Your task to perform on an android device: see tabs open on other devices in the chrome app Image 0: 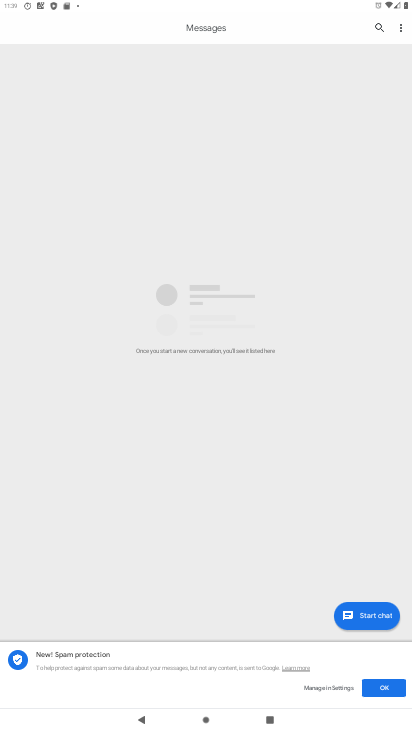
Step 0: press home button
Your task to perform on an android device: see tabs open on other devices in the chrome app Image 1: 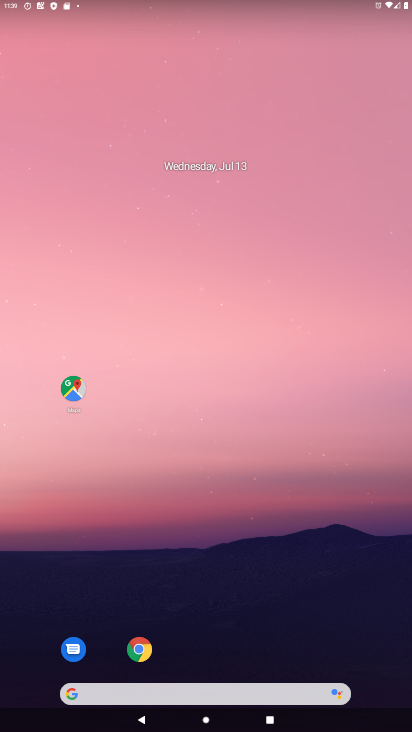
Step 1: click (140, 649)
Your task to perform on an android device: see tabs open on other devices in the chrome app Image 2: 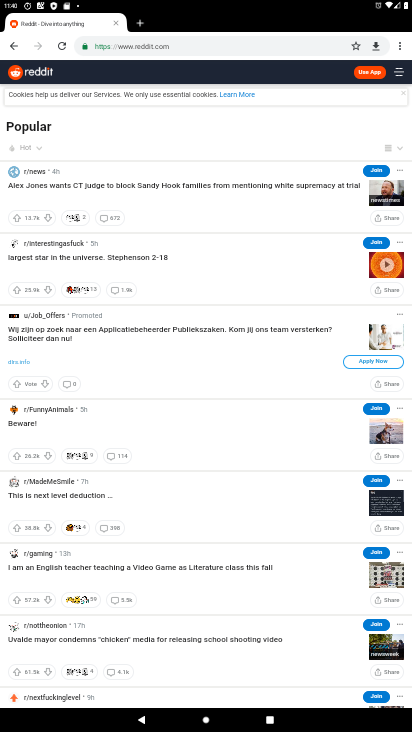
Step 2: click (399, 45)
Your task to perform on an android device: see tabs open on other devices in the chrome app Image 3: 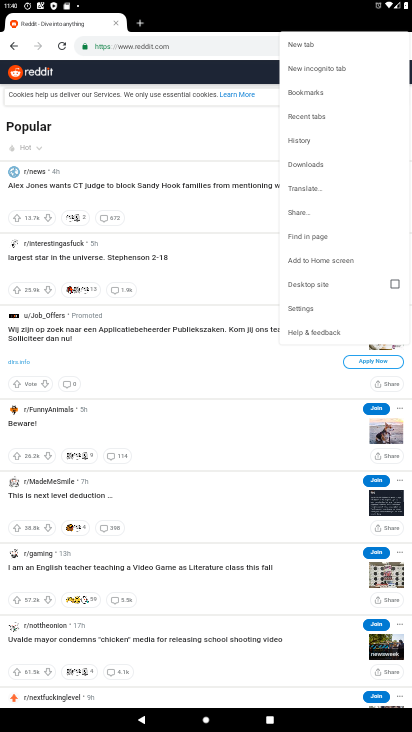
Step 3: click (307, 116)
Your task to perform on an android device: see tabs open on other devices in the chrome app Image 4: 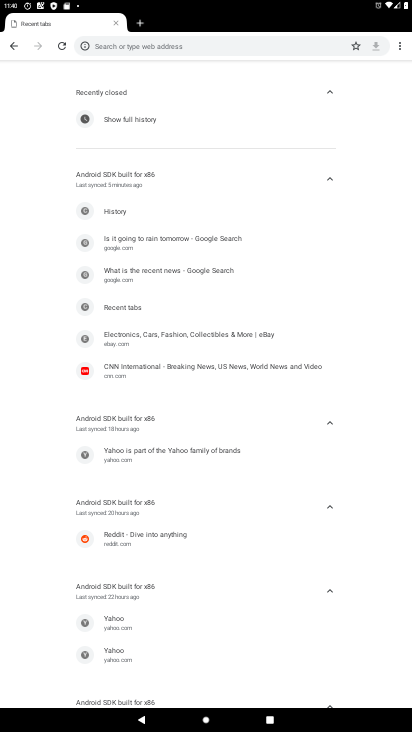
Step 4: task complete